Your task to perform on an android device: open app "Google Chat" Image 0: 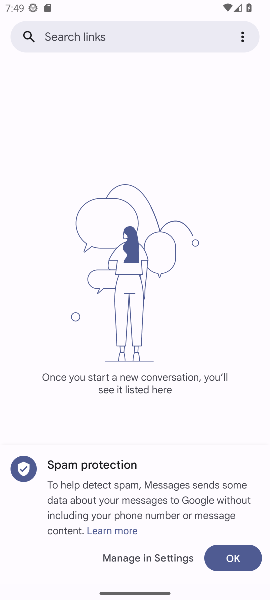
Step 0: drag from (151, 519) to (183, 277)
Your task to perform on an android device: open app "Google Chat" Image 1: 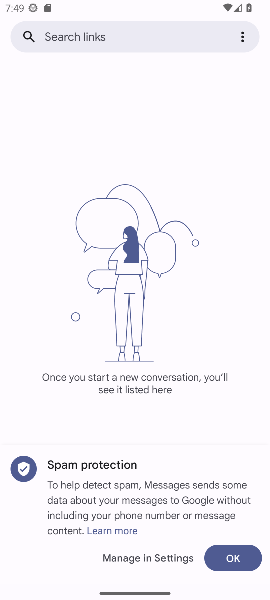
Step 1: drag from (121, 447) to (183, 204)
Your task to perform on an android device: open app "Google Chat" Image 2: 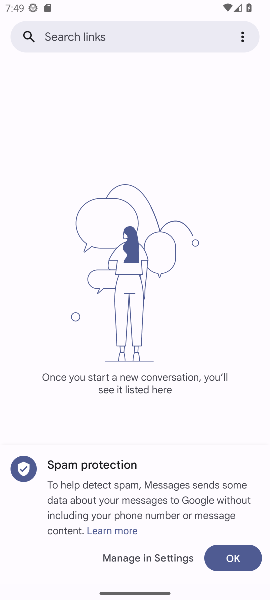
Step 2: press home button
Your task to perform on an android device: open app "Google Chat" Image 3: 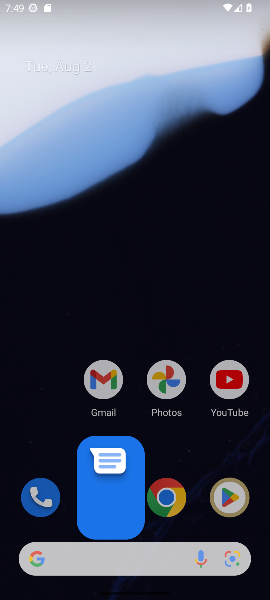
Step 3: drag from (108, 473) to (172, 194)
Your task to perform on an android device: open app "Google Chat" Image 4: 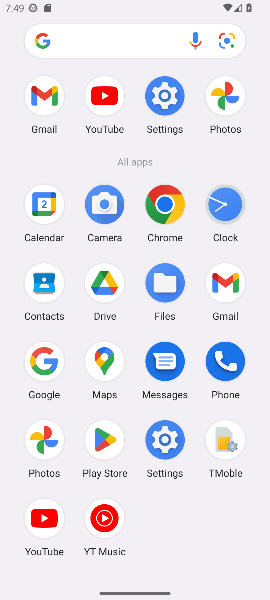
Step 4: click (166, 96)
Your task to perform on an android device: open app "Google Chat" Image 5: 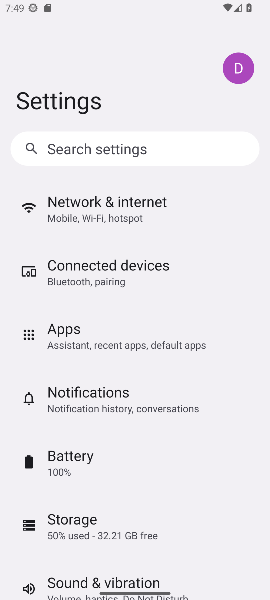
Step 5: drag from (152, 492) to (182, 247)
Your task to perform on an android device: open app "Google Chat" Image 6: 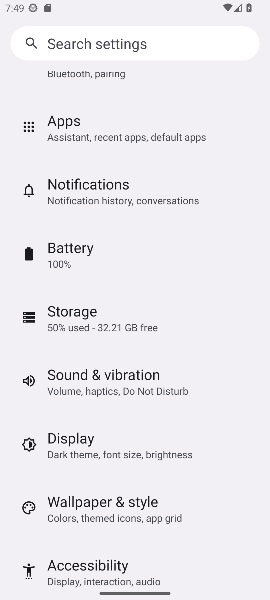
Step 6: drag from (145, 515) to (166, 215)
Your task to perform on an android device: open app "Google Chat" Image 7: 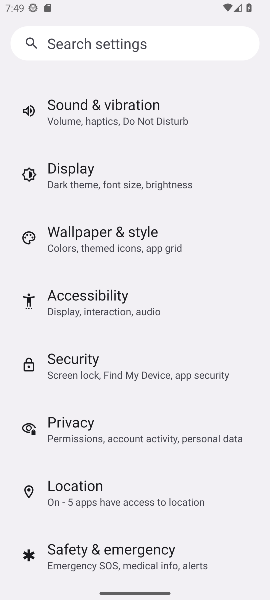
Step 7: drag from (136, 191) to (150, 596)
Your task to perform on an android device: open app "Google Chat" Image 8: 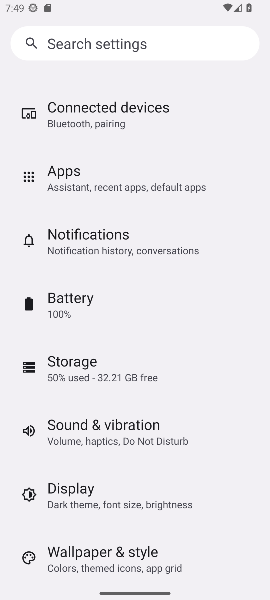
Step 8: drag from (161, 235) to (114, 529)
Your task to perform on an android device: open app "Google Chat" Image 9: 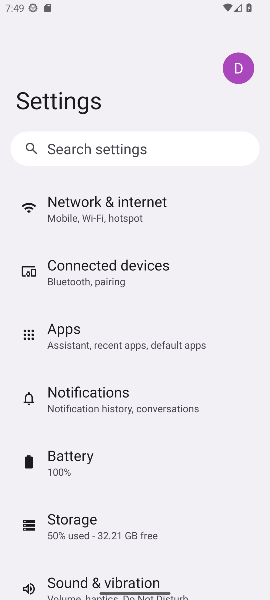
Step 9: drag from (102, 325) to (95, 587)
Your task to perform on an android device: open app "Google Chat" Image 10: 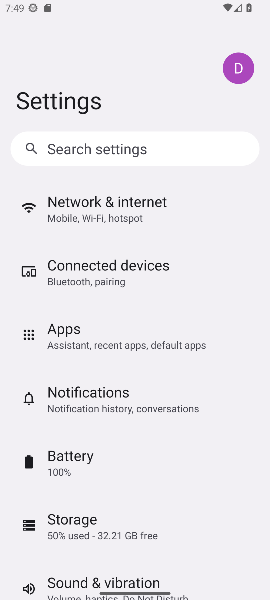
Step 10: press home button
Your task to perform on an android device: open app "Google Chat" Image 11: 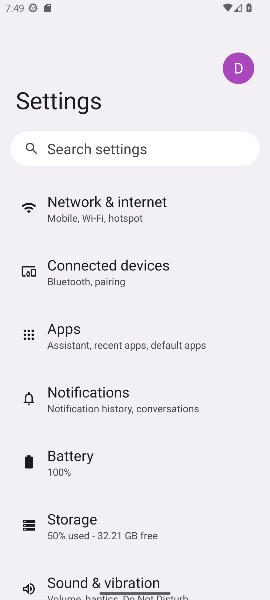
Step 11: press home button
Your task to perform on an android device: open app "Google Chat" Image 12: 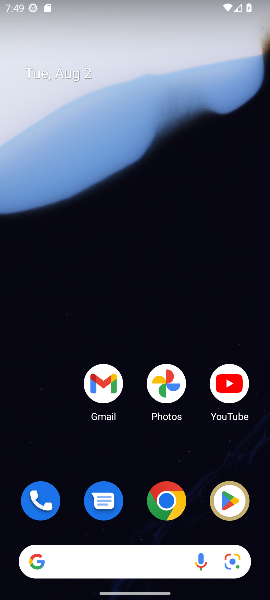
Step 12: drag from (163, 524) to (183, 171)
Your task to perform on an android device: open app "Google Chat" Image 13: 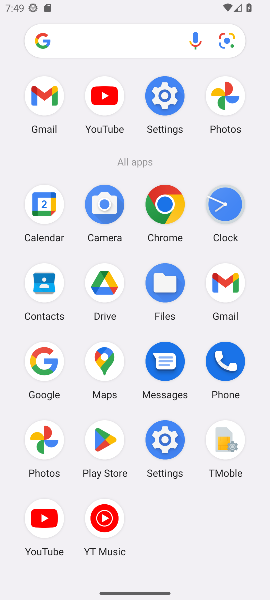
Step 13: click (105, 437)
Your task to perform on an android device: open app "Google Chat" Image 14: 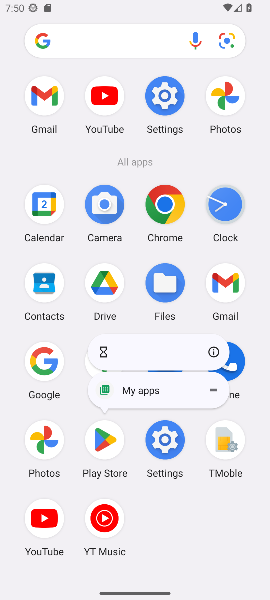
Step 14: click (210, 350)
Your task to perform on an android device: open app "Google Chat" Image 15: 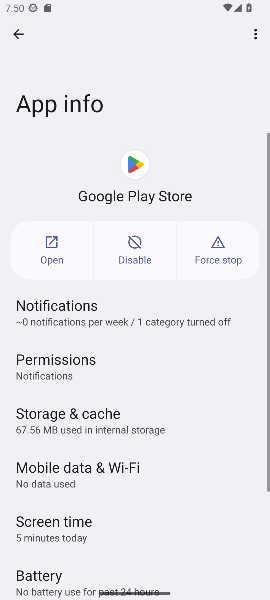
Step 15: click (58, 245)
Your task to perform on an android device: open app "Google Chat" Image 16: 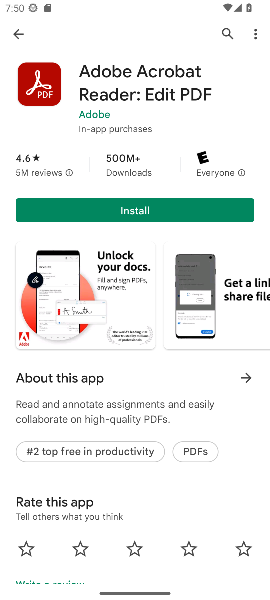
Step 16: click (226, 28)
Your task to perform on an android device: open app "Google Chat" Image 17: 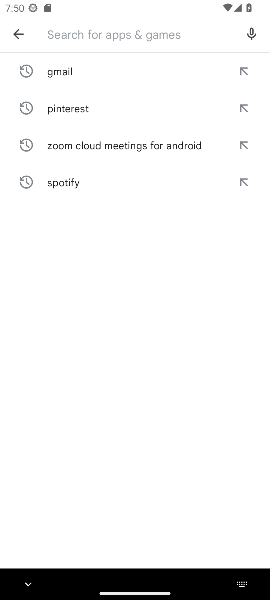
Step 17: click (73, 34)
Your task to perform on an android device: open app "Google Chat" Image 18: 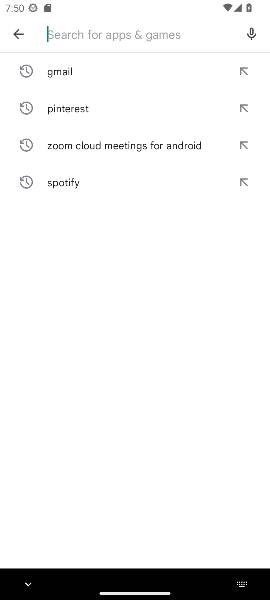
Step 18: type "Google Chat"
Your task to perform on an android device: open app "Google Chat" Image 19: 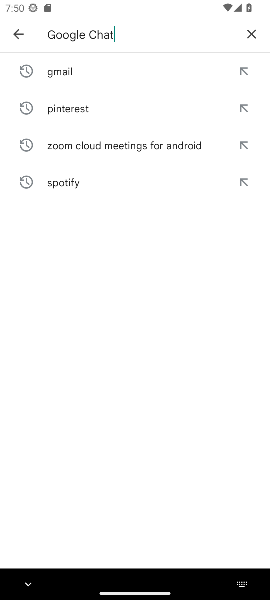
Step 19: type ""
Your task to perform on an android device: open app "Google Chat" Image 20: 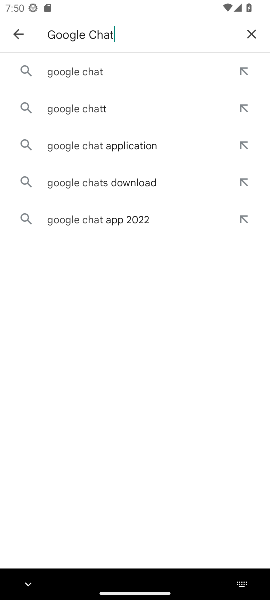
Step 20: click (94, 72)
Your task to perform on an android device: open app "Google Chat" Image 21: 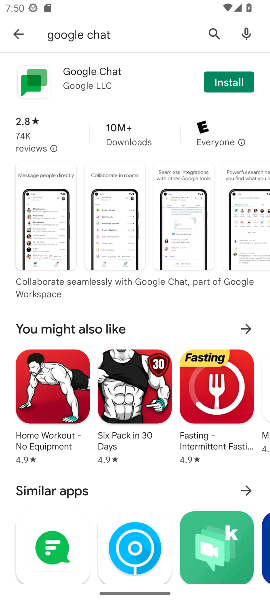
Step 21: click (88, 80)
Your task to perform on an android device: open app "Google Chat" Image 22: 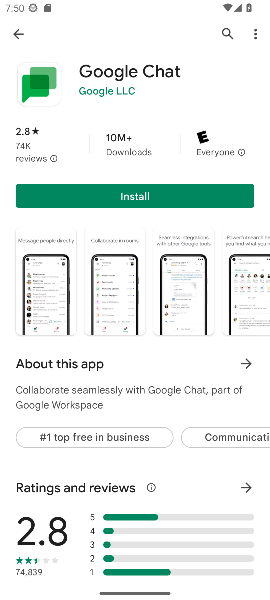
Step 22: task complete